Your task to perform on an android device: What's the time in New York? Image 0: 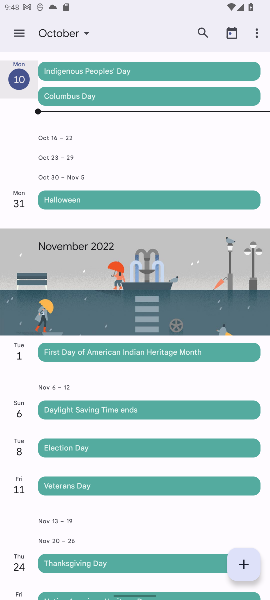
Step 0: press home button
Your task to perform on an android device: What's the time in New York? Image 1: 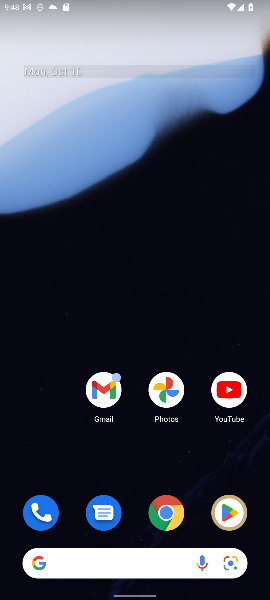
Step 1: click (139, 554)
Your task to perform on an android device: What's the time in New York? Image 2: 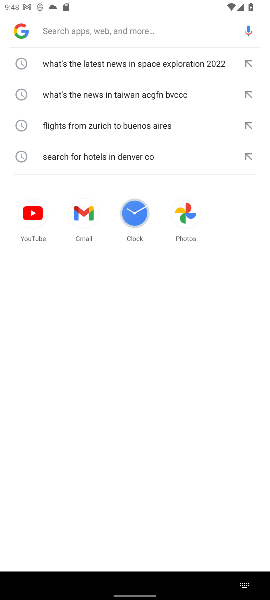
Step 2: type "What's the time in New York?"
Your task to perform on an android device: What's the time in New York? Image 3: 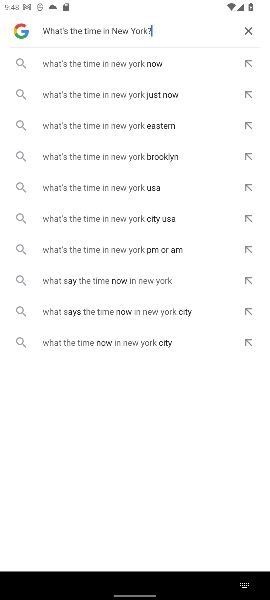
Step 3: click (111, 59)
Your task to perform on an android device: What's the time in New York? Image 4: 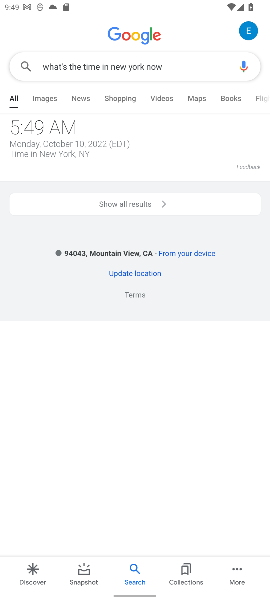
Step 4: task complete